Your task to perform on an android device: add a label to a message in the gmail app Image 0: 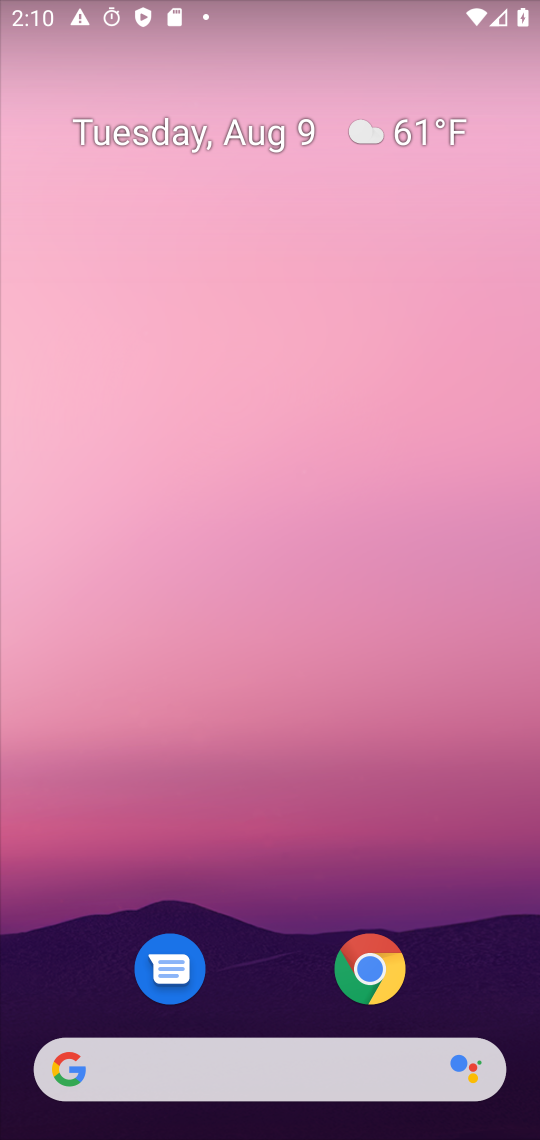
Step 0: drag from (302, 1130) to (261, 387)
Your task to perform on an android device: add a label to a message in the gmail app Image 1: 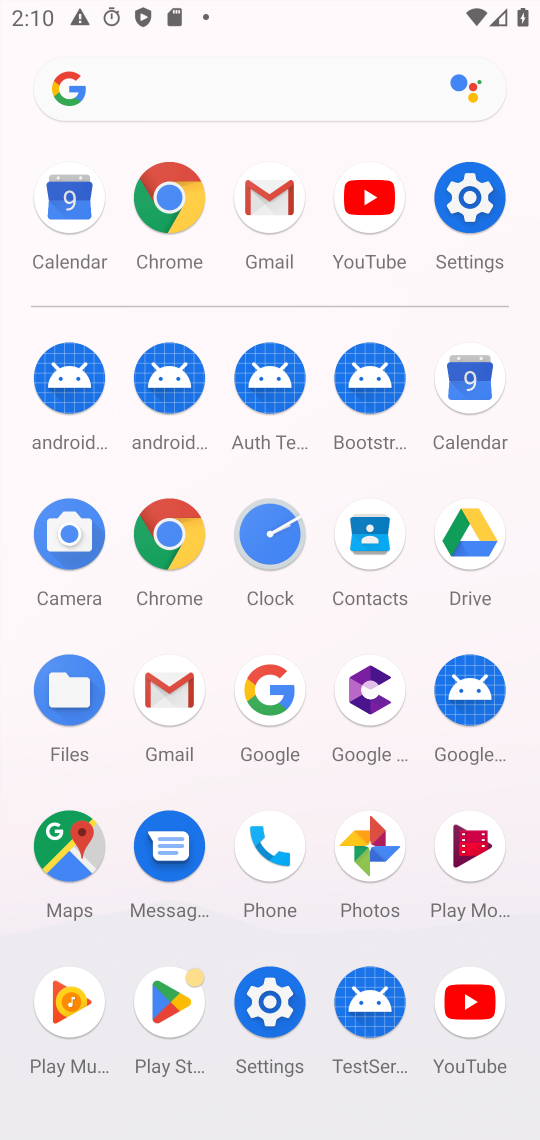
Step 1: click (262, 186)
Your task to perform on an android device: add a label to a message in the gmail app Image 2: 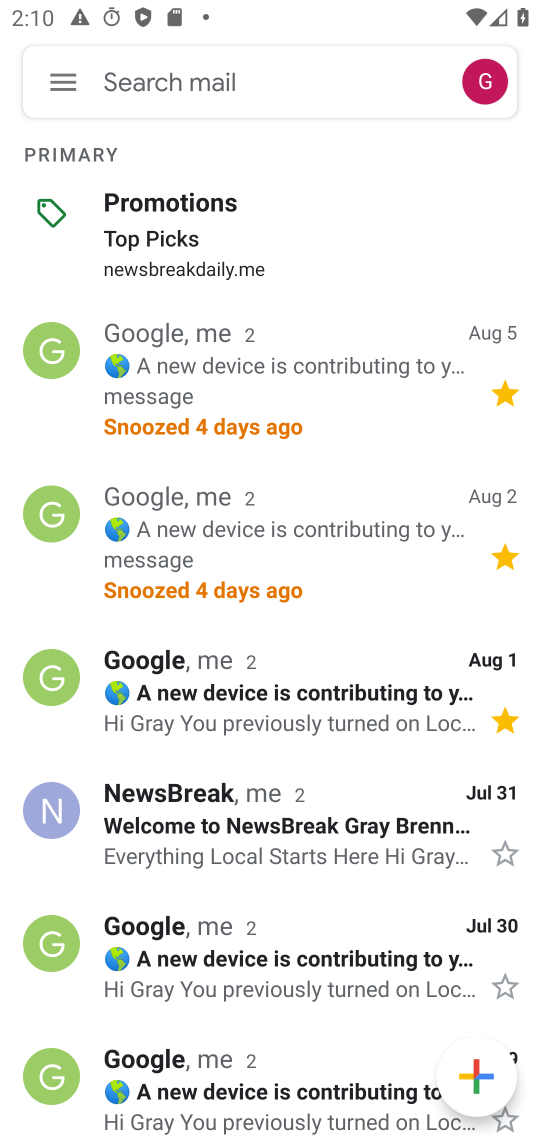
Step 2: click (55, 79)
Your task to perform on an android device: add a label to a message in the gmail app Image 3: 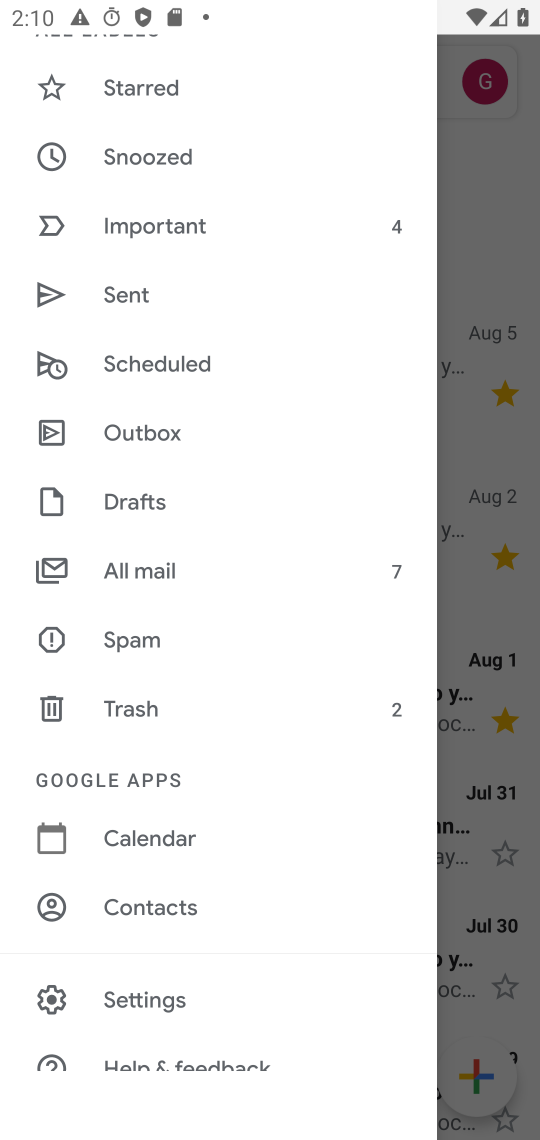
Step 3: click (128, 993)
Your task to perform on an android device: add a label to a message in the gmail app Image 4: 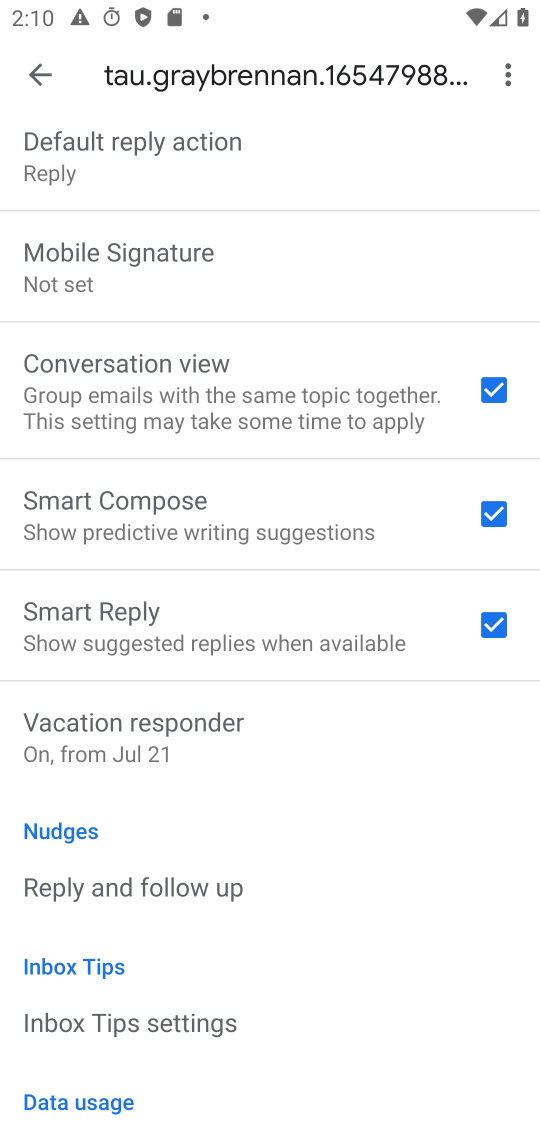
Step 4: drag from (168, 243) to (117, 781)
Your task to perform on an android device: add a label to a message in the gmail app Image 5: 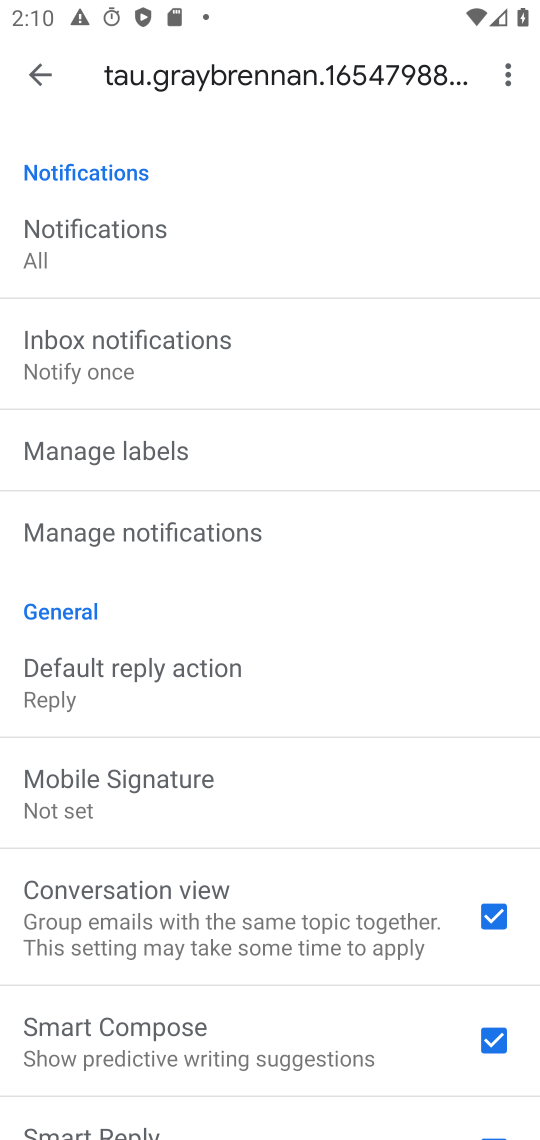
Step 5: click (89, 442)
Your task to perform on an android device: add a label to a message in the gmail app Image 6: 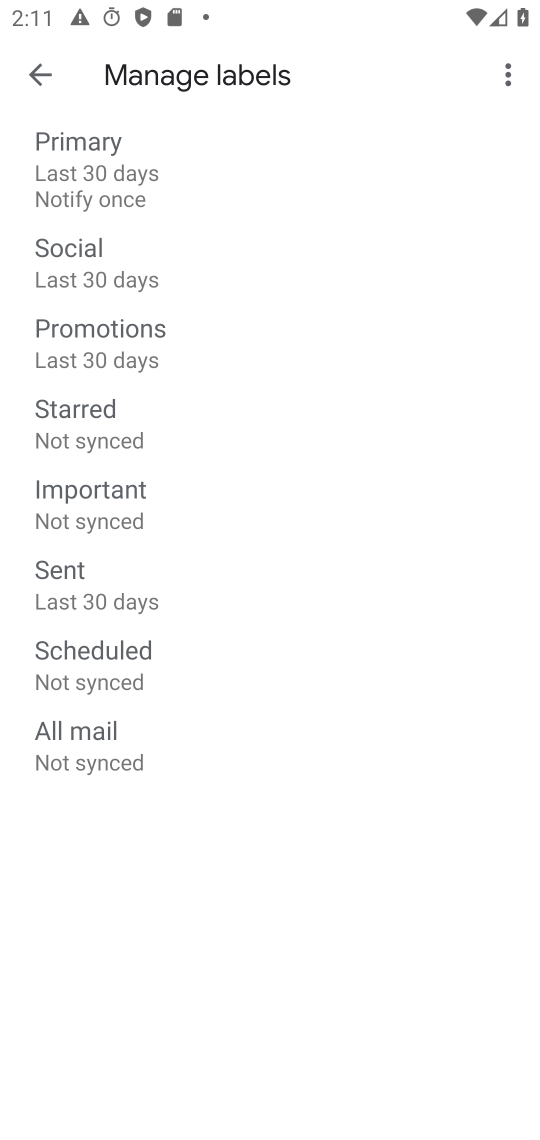
Step 6: task complete